Your task to perform on an android device: choose inbox layout in the gmail app Image 0: 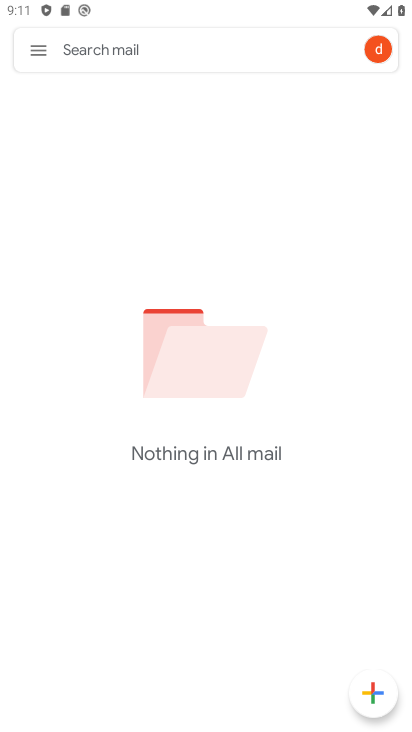
Step 0: press home button
Your task to perform on an android device: choose inbox layout in the gmail app Image 1: 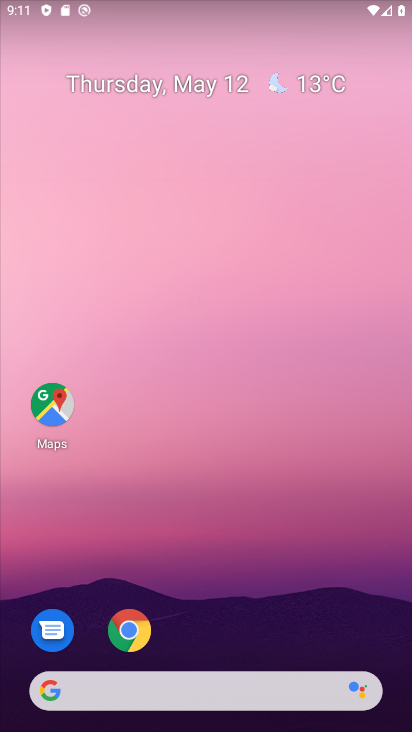
Step 1: drag from (201, 678) to (246, 256)
Your task to perform on an android device: choose inbox layout in the gmail app Image 2: 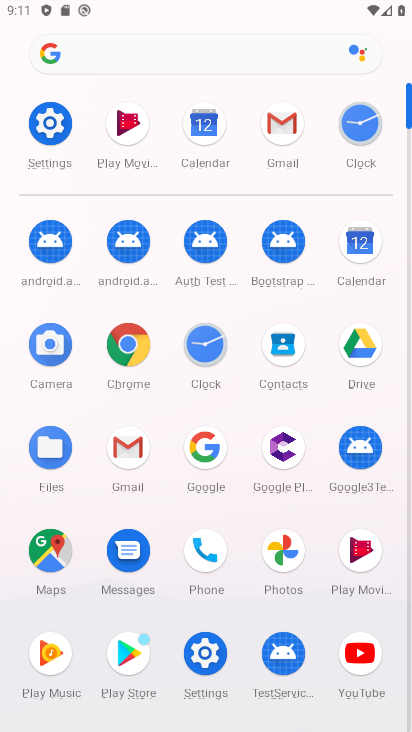
Step 2: click (105, 459)
Your task to perform on an android device: choose inbox layout in the gmail app Image 3: 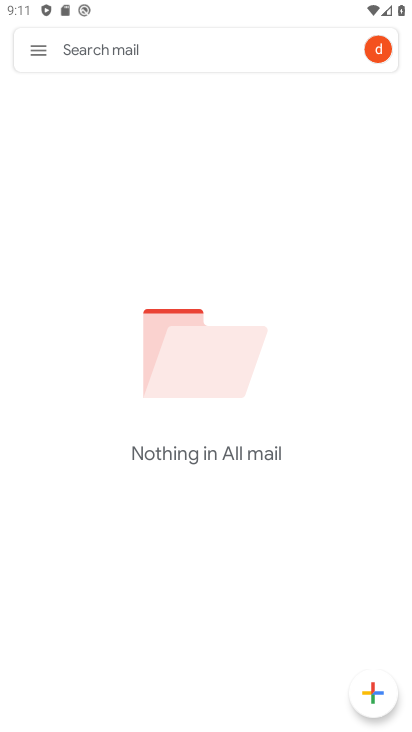
Step 3: click (35, 56)
Your task to perform on an android device: choose inbox layout in the gmail app Image 4: 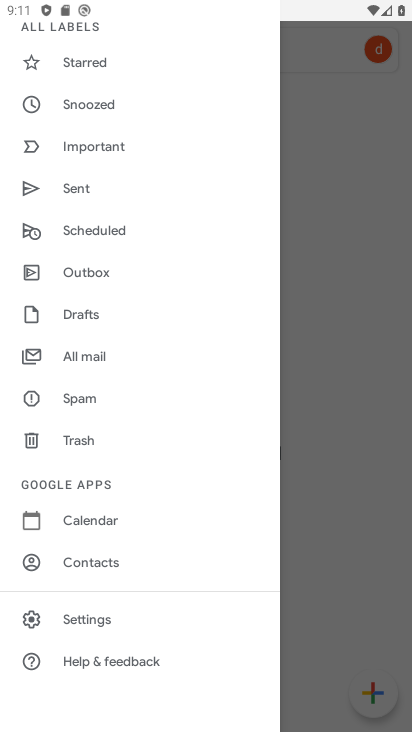
Step 4: click (80, 614)
Your task to perform on an android device: choose inbox layout in the gmail app Image 5: 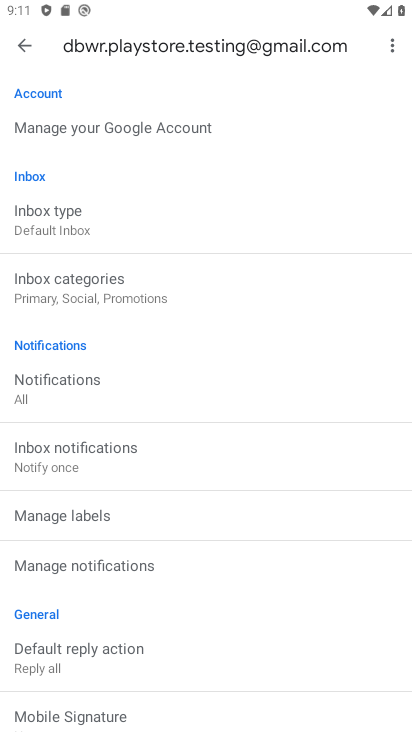
Step 5: click (53, 215)
Your task to perform on an android device: choose inbox layout in the gmail app Image 6: 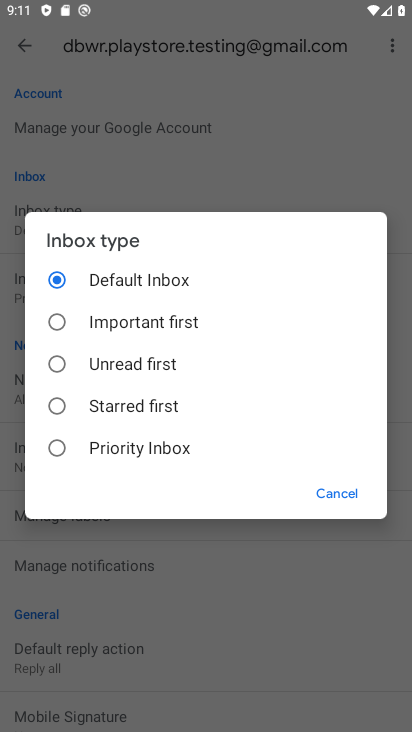
Step 6: click (121, 447)
Your task to perform on an android device: choose inbox layout in the gmail app Image 7: 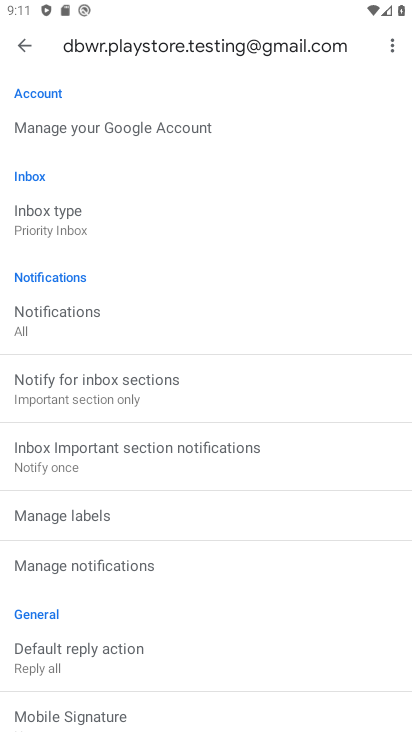
Step 7: task complete